Your task to perform on an android device: Clear the cart on target.com. Search for "dell xps" on target.com, select the first entry, and add it to the cart. Image 0: 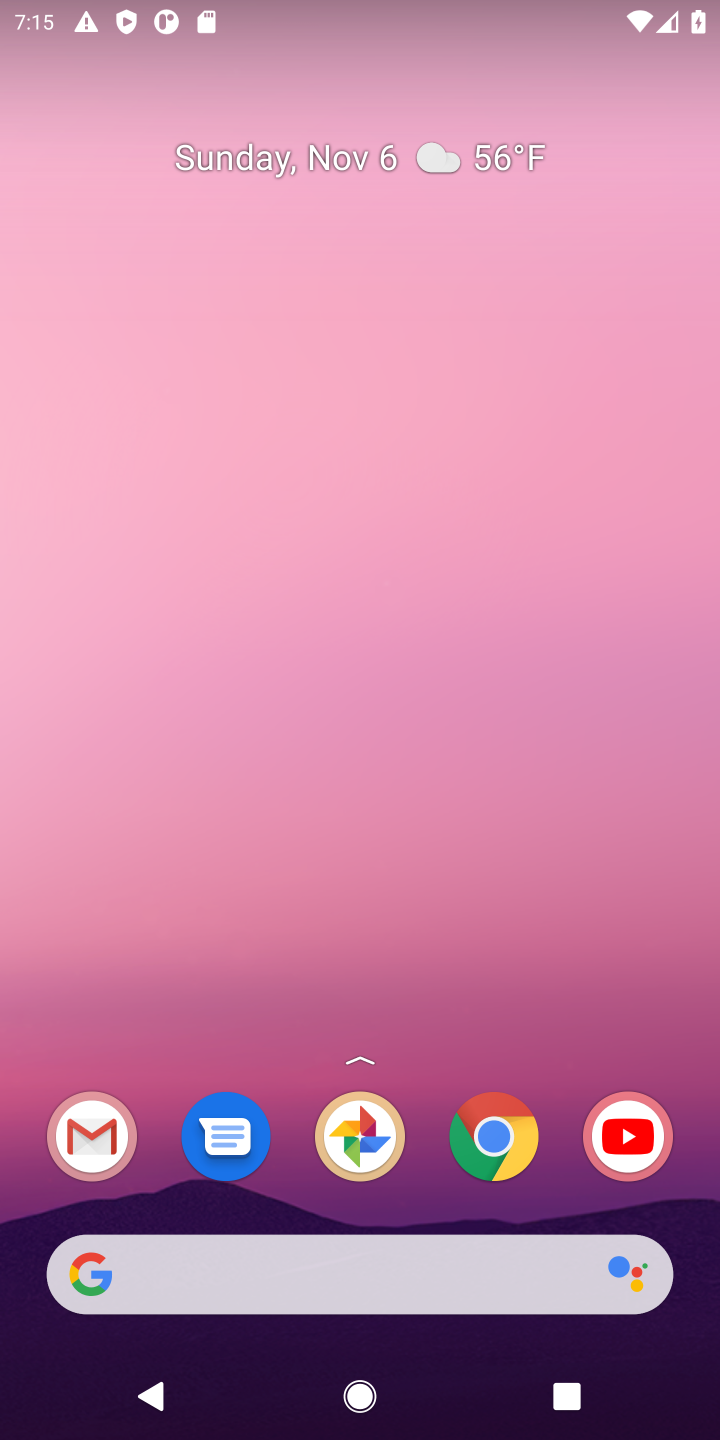
Step 0: click (230, 1246)
Your task to perform on an android device: Clear the cart on target.com. Search for "dell xps" on target.com, select the first entry, and add it to the cart. Image 1: 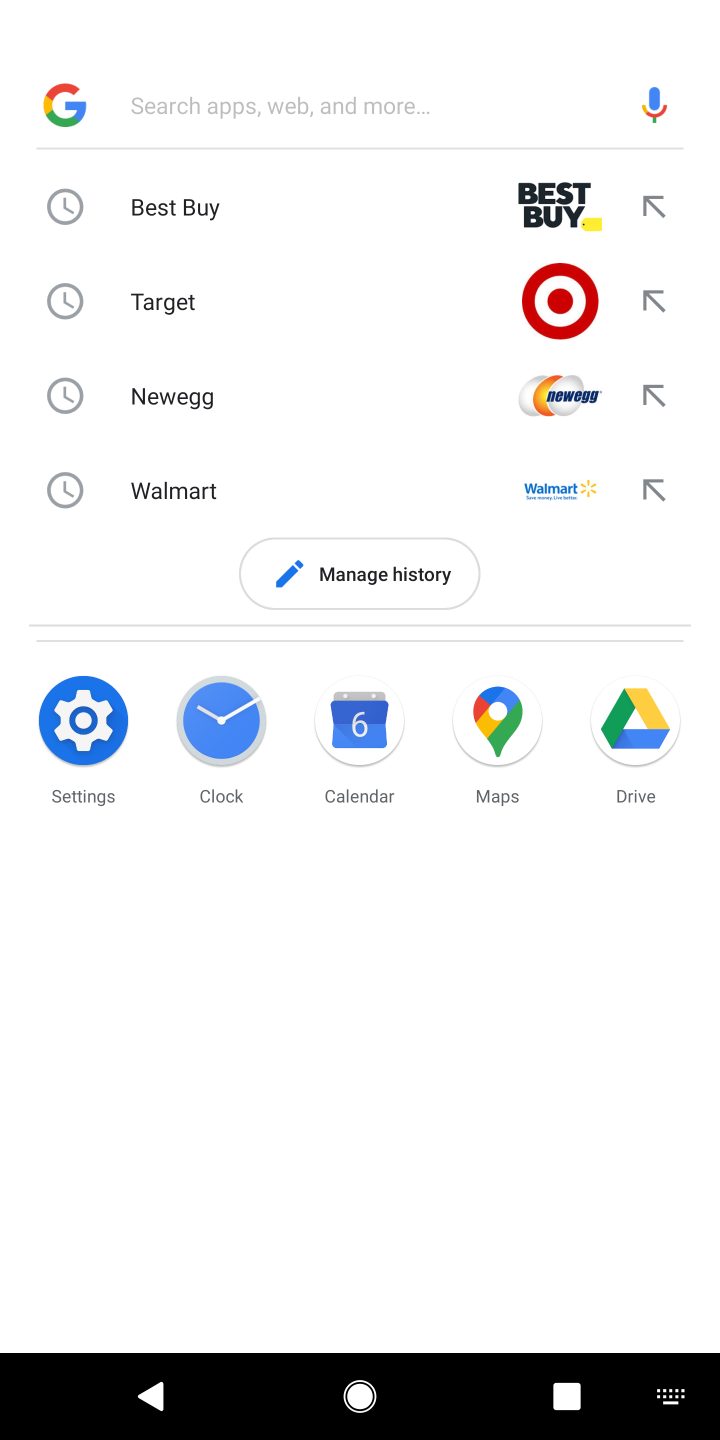
Step 1: click (245, 320)
Your task to perform on an android device: Clear the cart on target.com. Search for "dell xps" on target.com, select the first entry, and add it to the cart. Image 2: 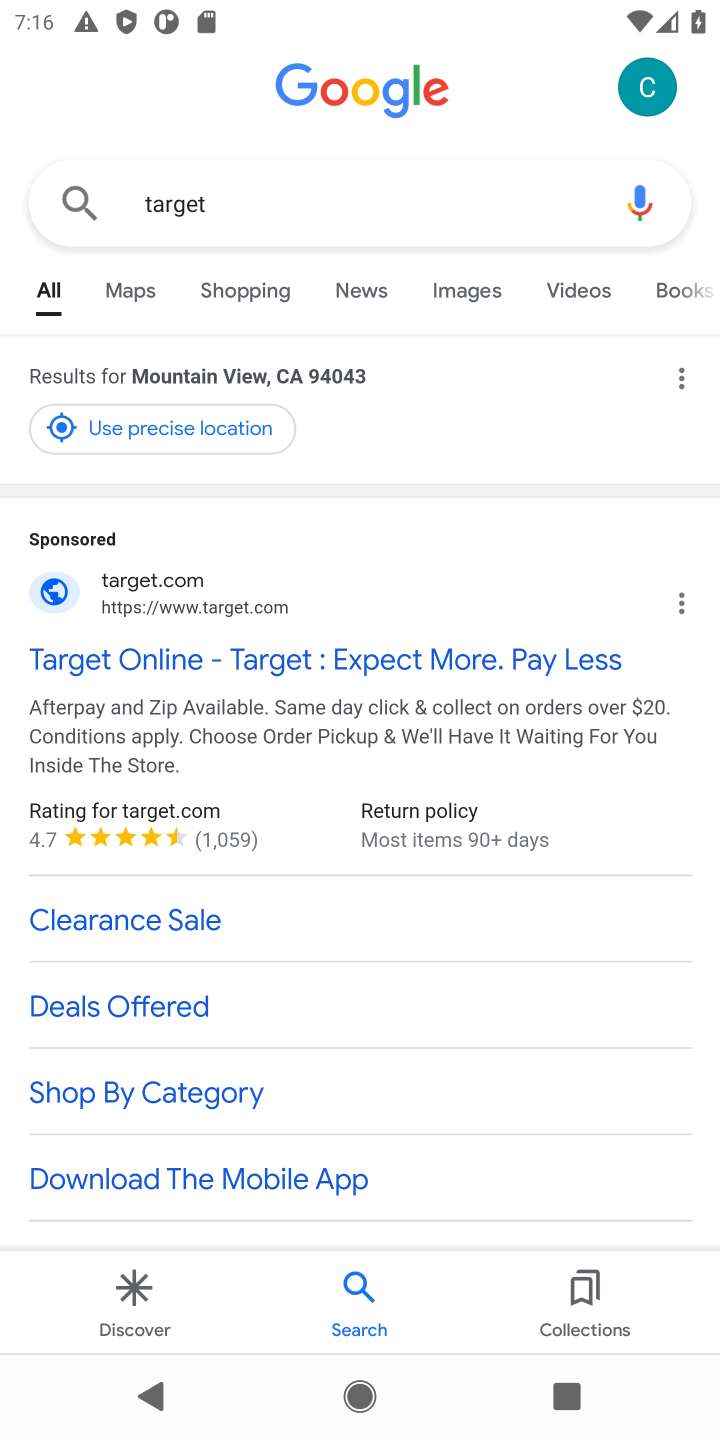
Step 2: click (378, 661)
Your task to perform on an android device: Clear the cart on target.com. Search for "dell xps" on target.com, select the first entry, and add it to the cart. Image 3: 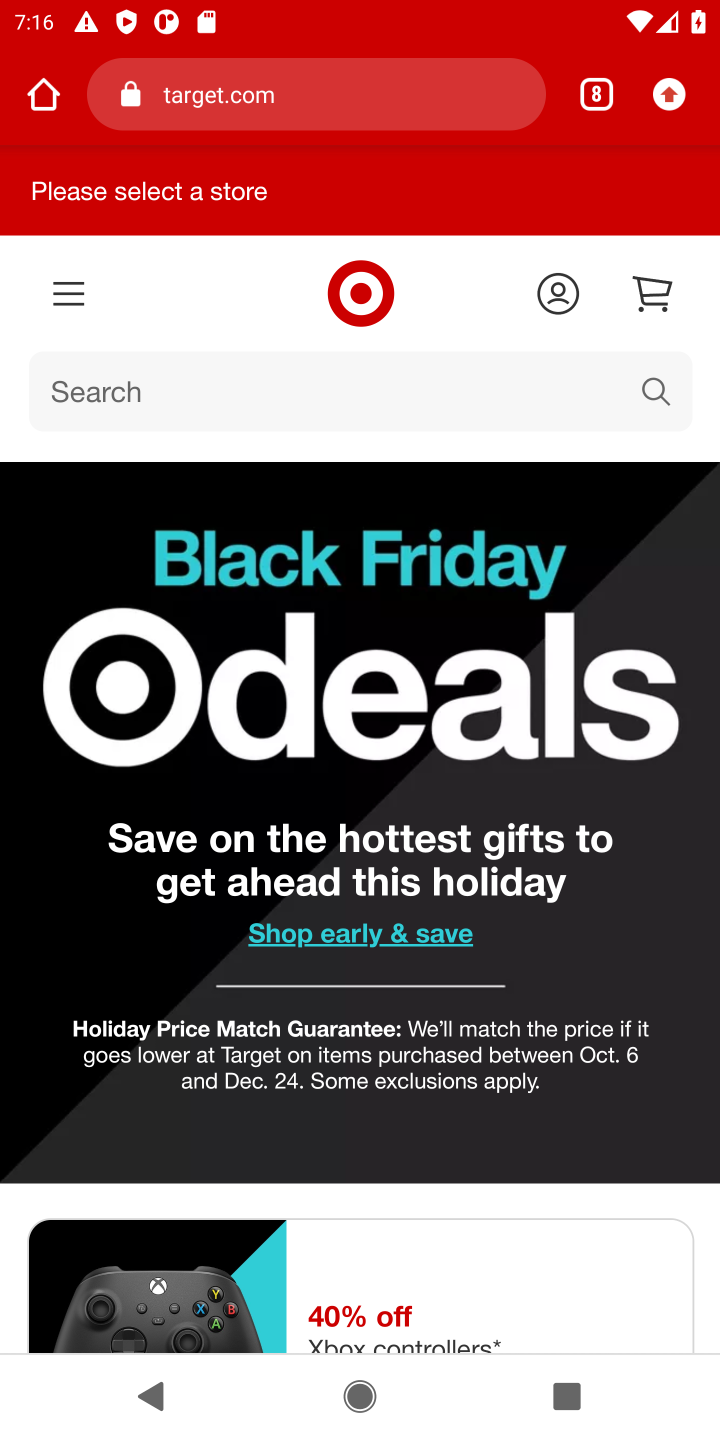
Step 3: task complete